Your task to perform on an android device: Open eBay Image 0: 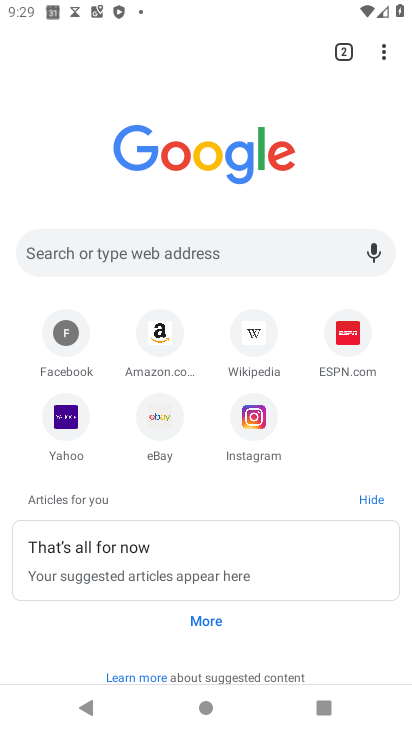
Step 0: press home button
Your task to perform on an android device: Open eBay Image 1: 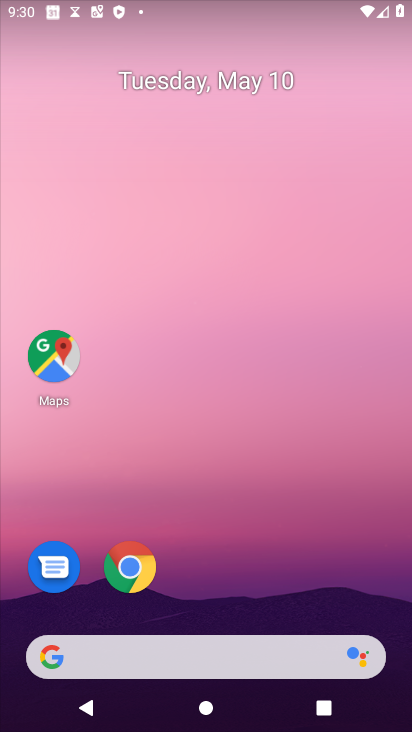
Step 1: click (137, 565)
Your task to perform on an android device: Open eBay Image 2: 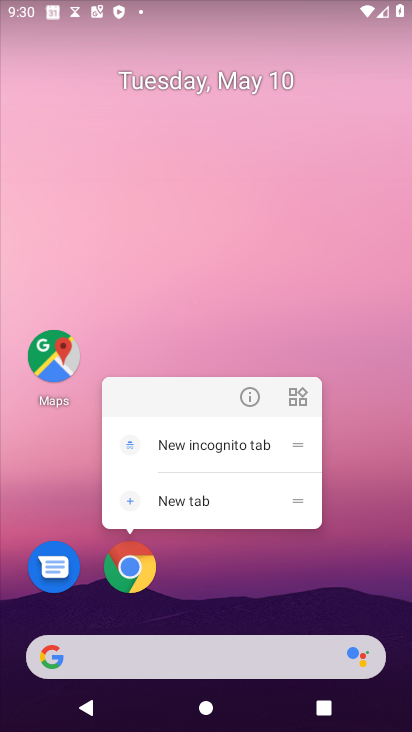
Step 2: click (345, 522)
Your task to perform on an android device: Open eBay Image 3: 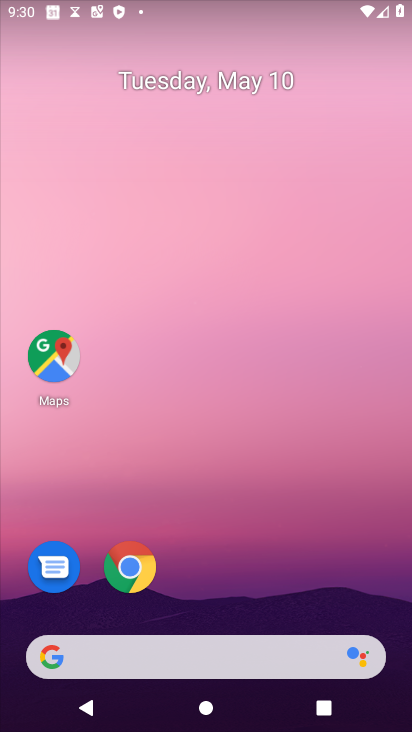
Step 3: click (120, 559)
Your task to perform on an android device: Open eBay Image 4: 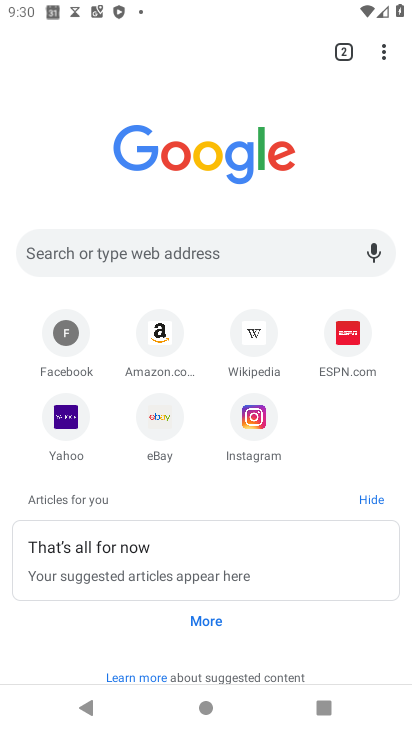
Step 4: click (154, 418)
Your task to perform on an android device: Open eBay Image 5: 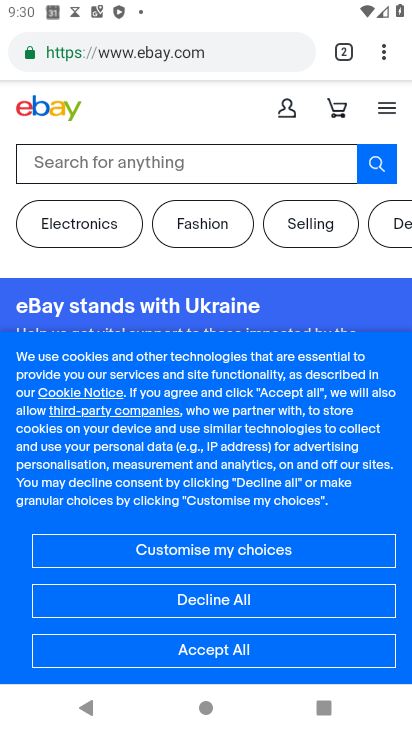
Step 5: task complete